Your task to perform on an android device: Go to Google Image 0: 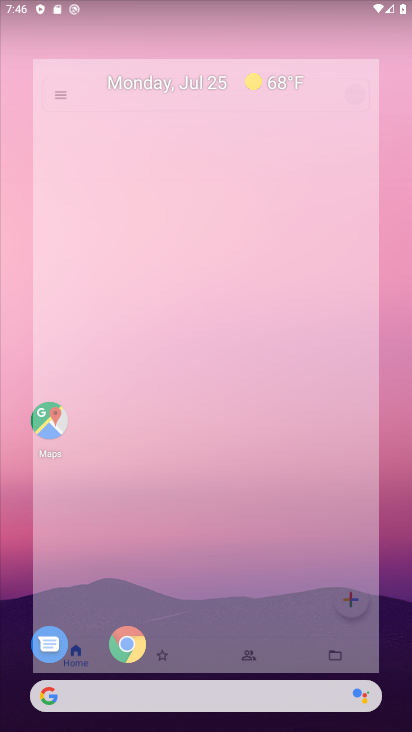
Step 0: drag from (174, 240) to (164, 146)
Your task to perform on an android device: Go to Google Image 1: 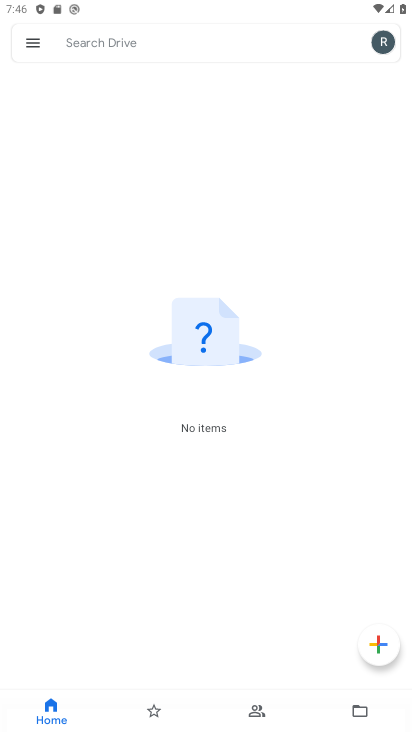
Step 1: press back button
Your task to perform on an android device: Go to Google Image 2: 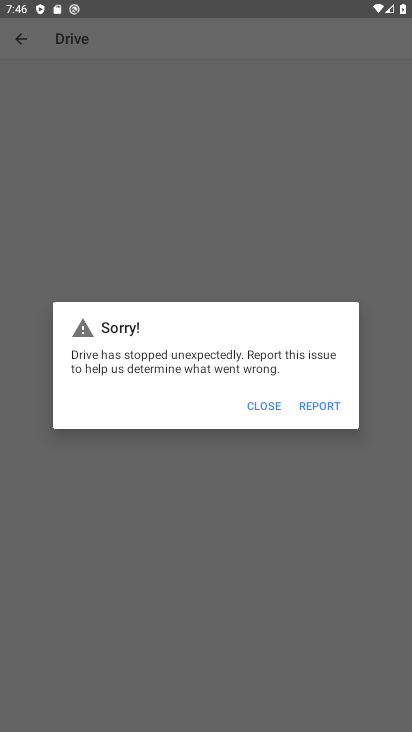
Step 2: click (270, 407)
Your task to perform on an android device: Go to Google Image 3: 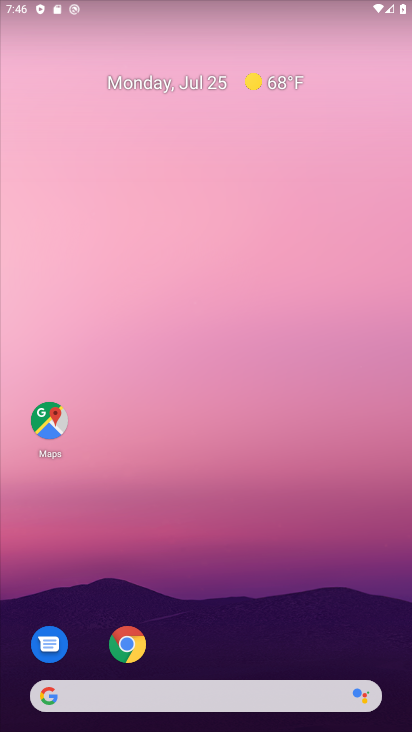
Step 3: drag from (250, 731) to (245, 207)
Your task to perform on an android device: Go to Google Image 4: 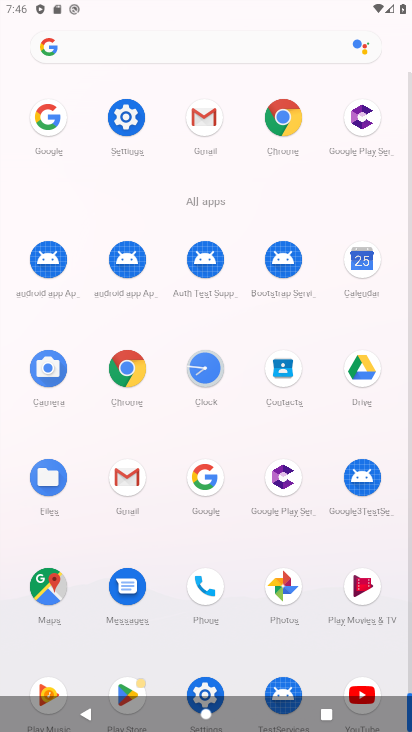
Step 4: click (196, 487)
Your task to perform on an android device: Go to Google Image 5: 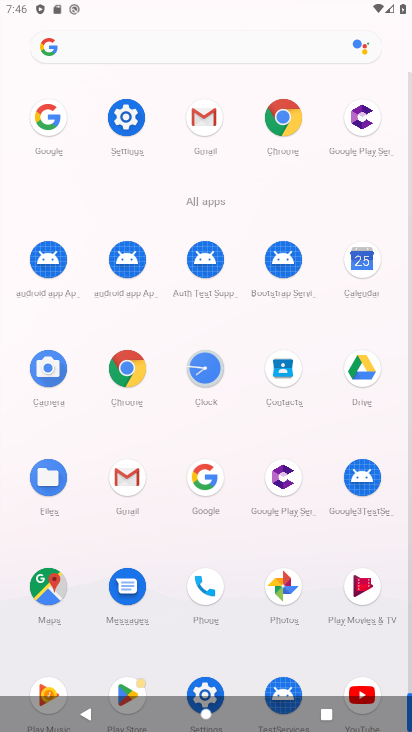
Step 5: click (197, 489)
Your task to perform on an android device: Go to Google Image 6: 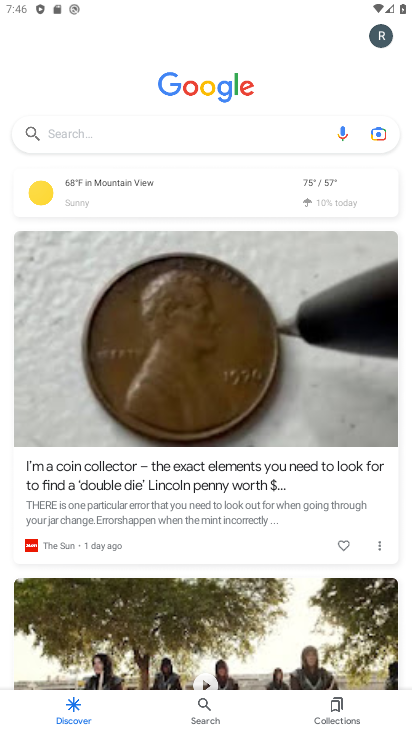
Step 6: task complete